Your task to perform on an android device: Open calendar and show me the fourth week of next month Image 0: 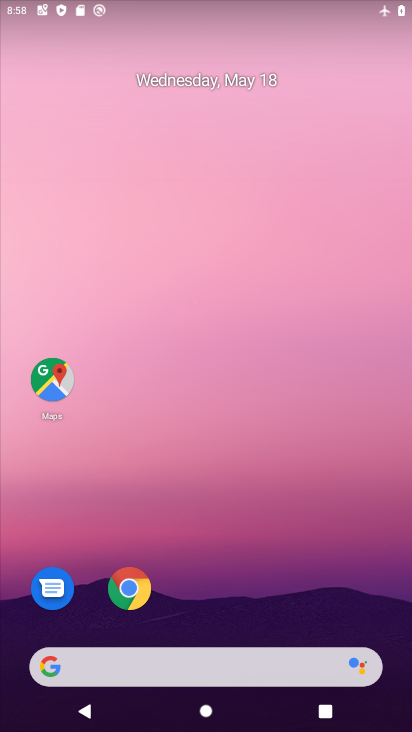
Step 0: drag from (328, 617) to (292, 1)
Your task to perform on an android device: Open calendar and show me the fourth week of next month Image 1: 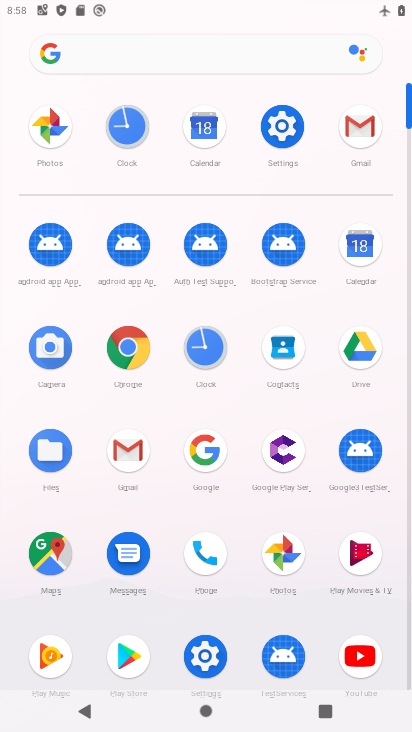
Step 1: click (202, 136)
Your task to perform on an android device: Open calendar and show me the fourth week of next month Image 2: 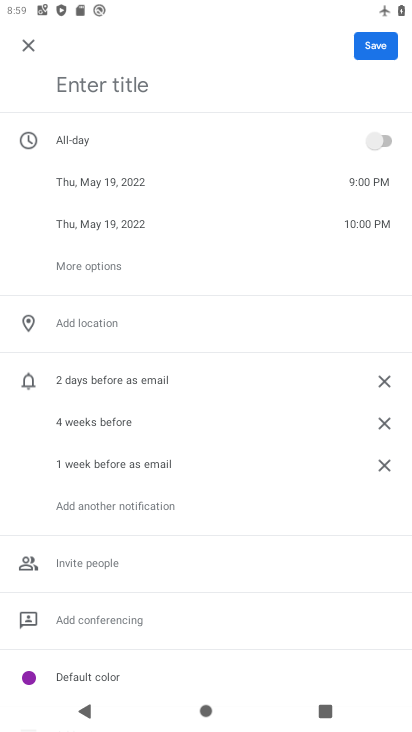
Step 2: click (31, 47)
Your task to perform on an android device: Open calendar and show me the fourth week of next month Image 3: 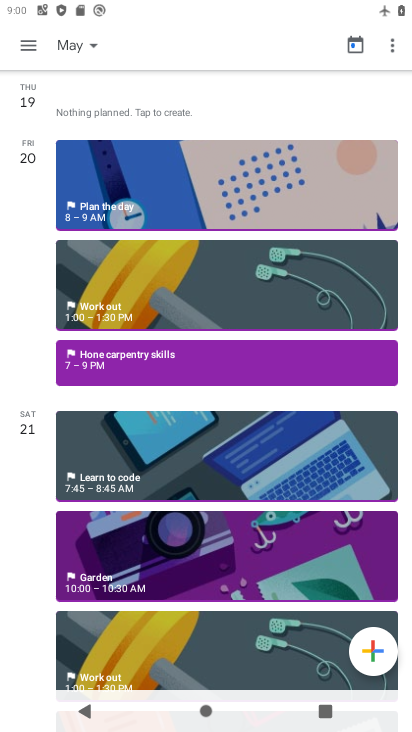
Step 3: click (93, 45)
Your task to perform on an android device: Open calendar and show me the fourth week of next month Image 4: 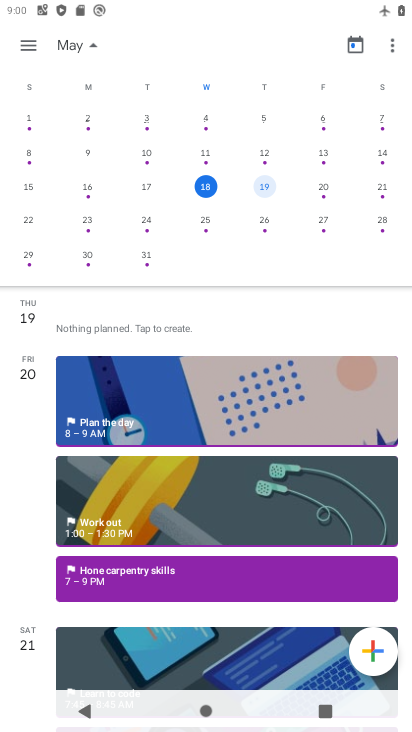
Step 4: drag from (328, 201) to (1, 83)
Your task to perform on an android device: Open calendar and show me the fourth week of next month Image 5: 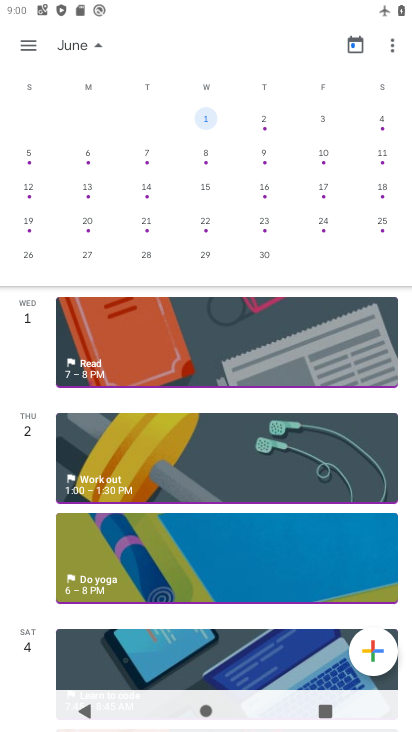
Step 5: click (25, 45)
Your task to perform on an android device: Open calendar and show me the fourth week of next month Image 6: 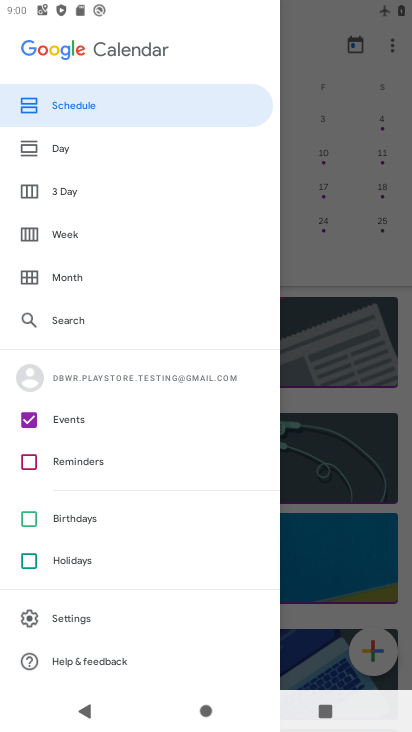
Step 6: click (63, 237)
Your task to perform on an android device: Open calendar and show me the fourth week of next month Image 7: 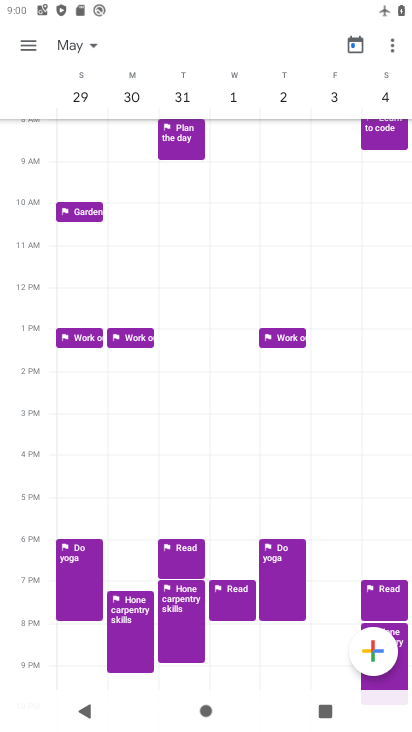
Step 7: task complete